Your task to perform on an android device: change notifications settings Image 0: 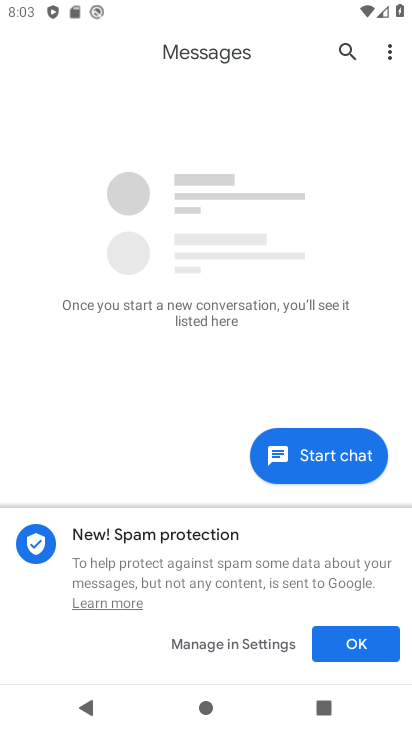
Step 0: press home button
Your task to perform on an android device: change notifications settings Image 1: 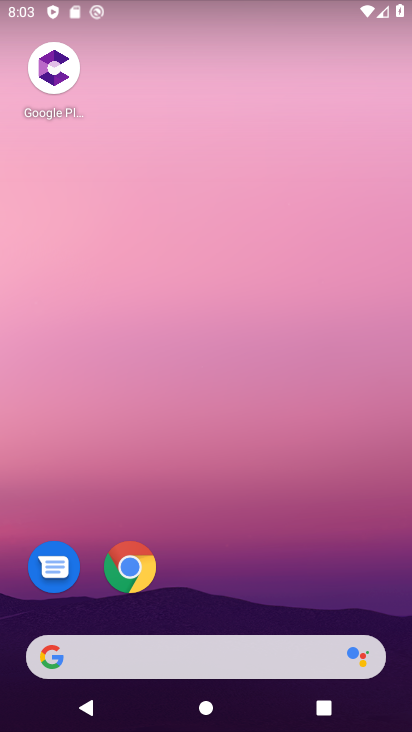
Step 1: drag from (226, 467) to (241, 86)
Your task to perform on an android device: change notifications settings Image 2: 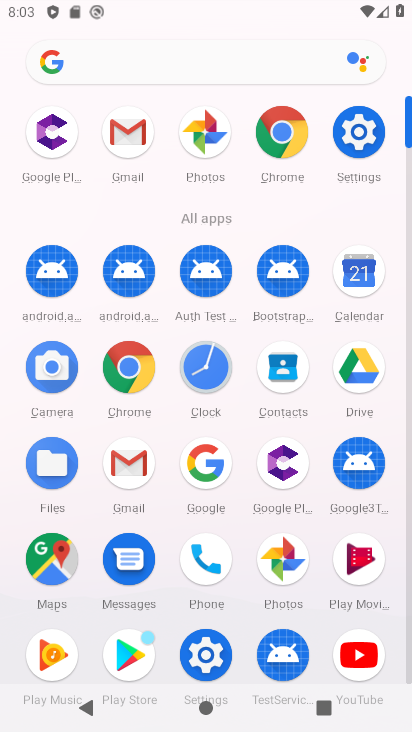
Step 2: click (355, 131)
Your task to perform on an android device: change notifications settings Image 3: 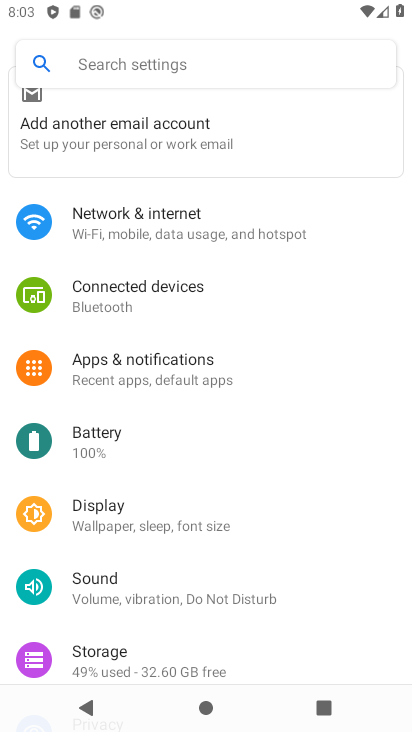
Step 3: click (175, 381)
Your task to perform on an android device: change notifications settings Image 4: 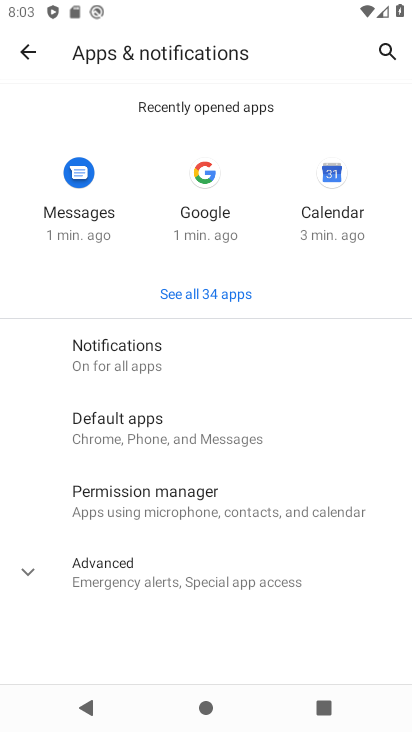
Step 4: click (176, 363)
Your task to perform on an android device: change notifications settings Image 5: 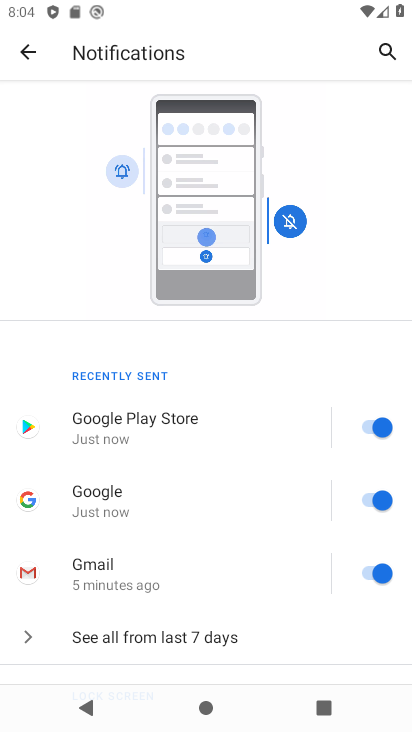
Step 5: drag from (203, 624) to (216, 218)
Your task to perform on an android device: change notifications settings Image 6: 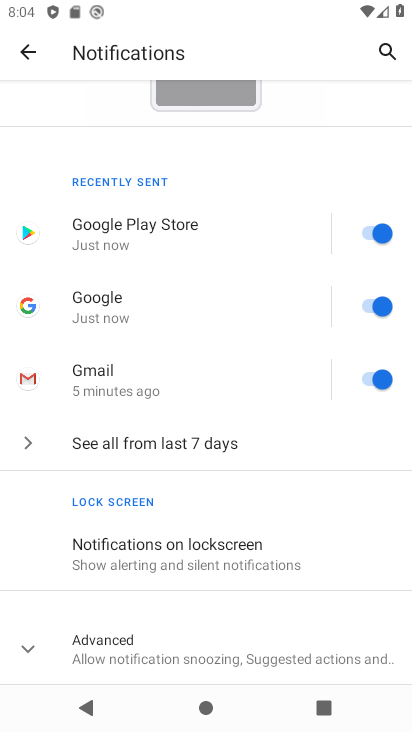
Step 6: drag from (165, 612) to (218, 350)
Your task to perform on an android device: change notifications settings Image 7: 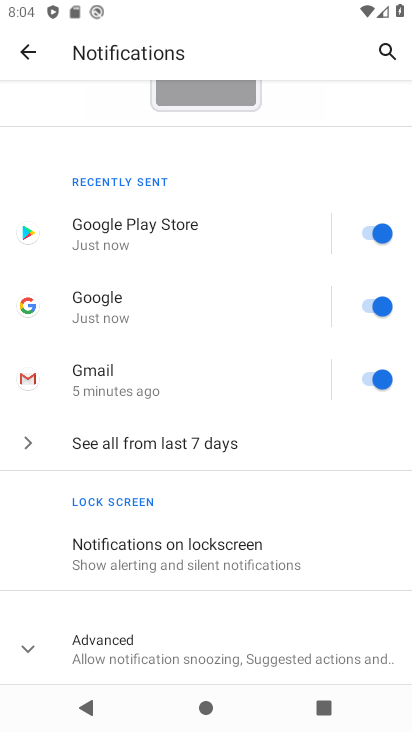
Step 7: drag from (268, 352) to (265, 621)
Your task to perform on an android device: change notifications settings Image 8: 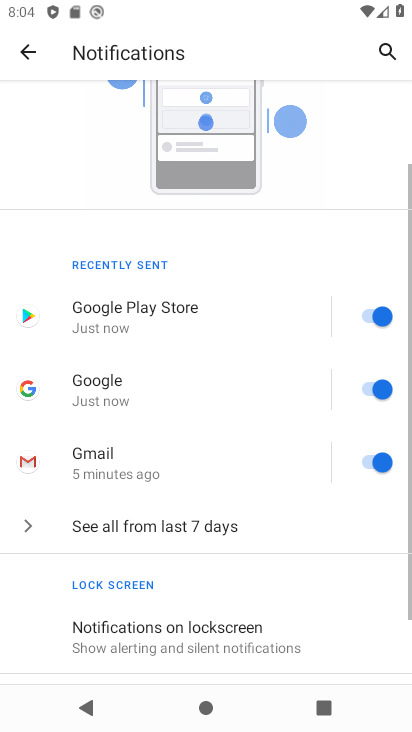
Step 8: drag from (274, 254) to (280, 600)
Your task to perform on an android device: change notifications settings Image 9: 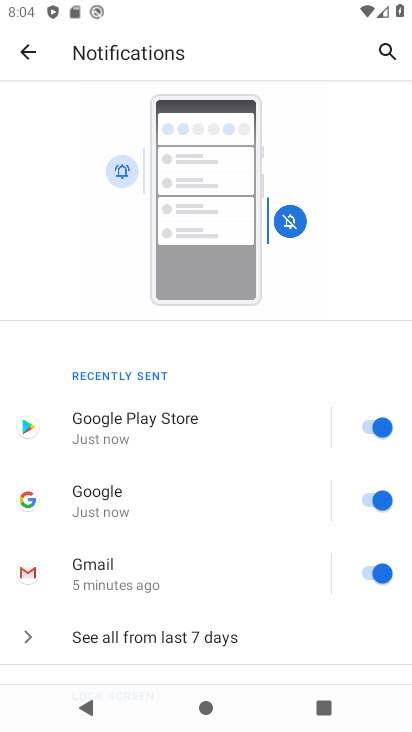
Step 9: drag from (188, 617) to (292, 196)
Your task to perform on an android device: change notifications settings Image 10: 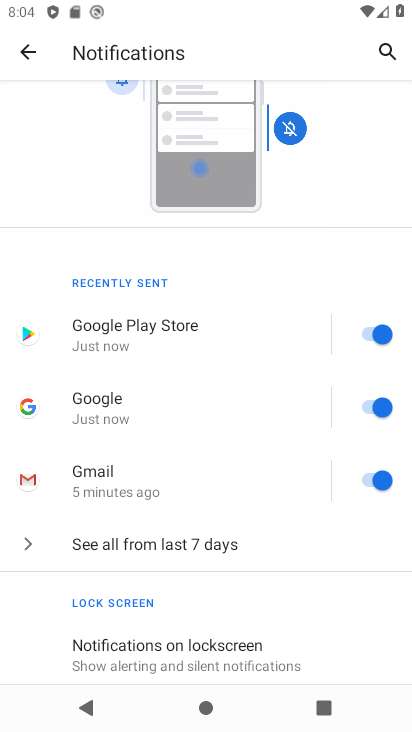
Step 10: click (163, 637)
Your task to perform on an android device: change notifications settings Image 11: 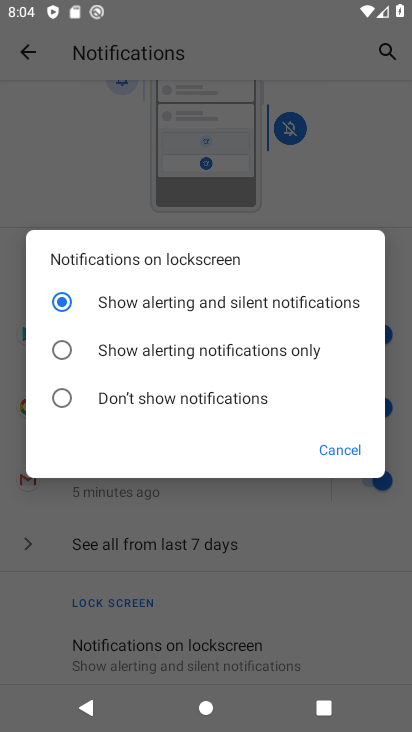
Step 11: click (235, 389)
Your task to perform on an android device: change notifications settings Image 12: 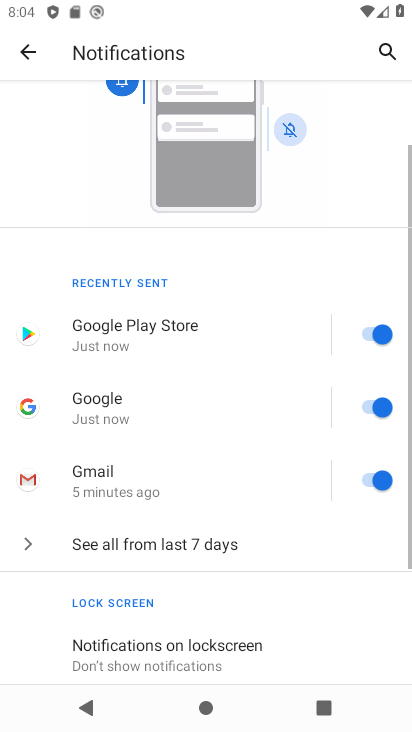
Step 12: task complete